Your task to perform on an android device: create a new album in the google photos Image 0: 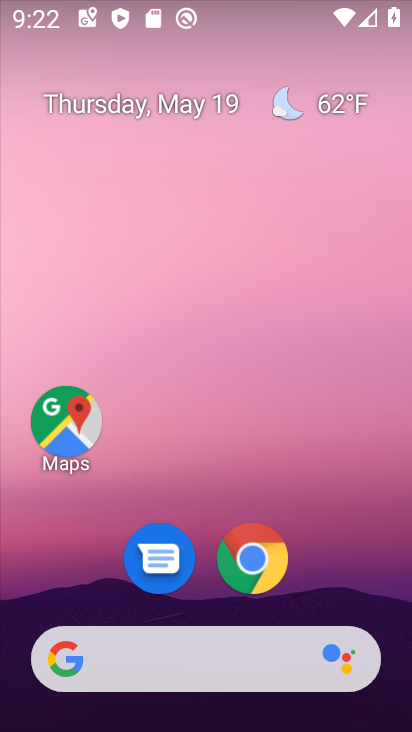
Step 0: drag from (331, 586) to (221, 153)
Your task to perform on an android device: create a new album in the google photos Image 1: 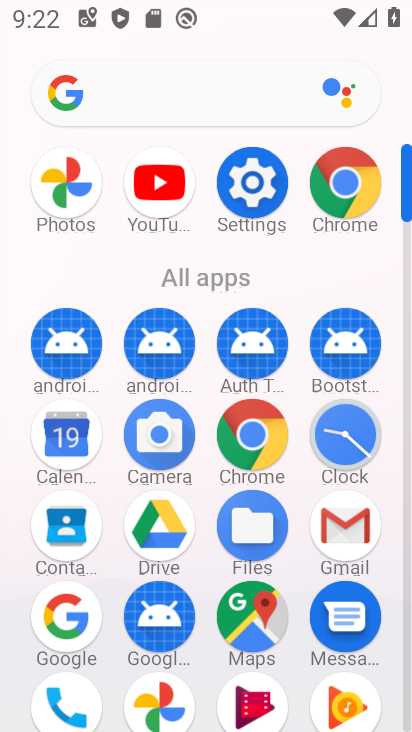
Step 1: click (67, 184)
Your task to perform on an android device: create a new album in the google photos Image 2: 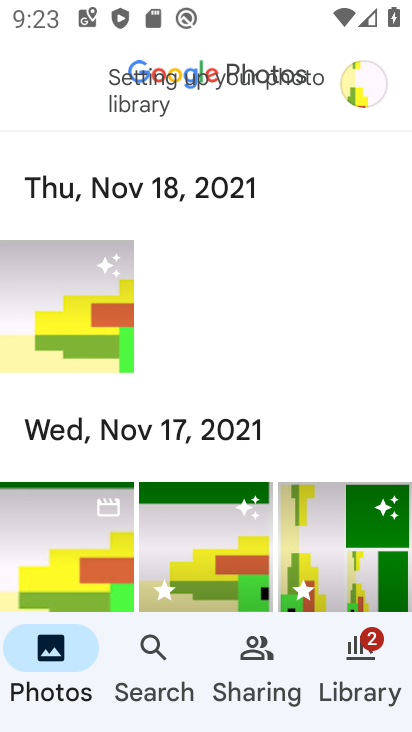
Step 2: click (365, 651)
Your task to perform on an android device: create a new album in the google photos Image 3: 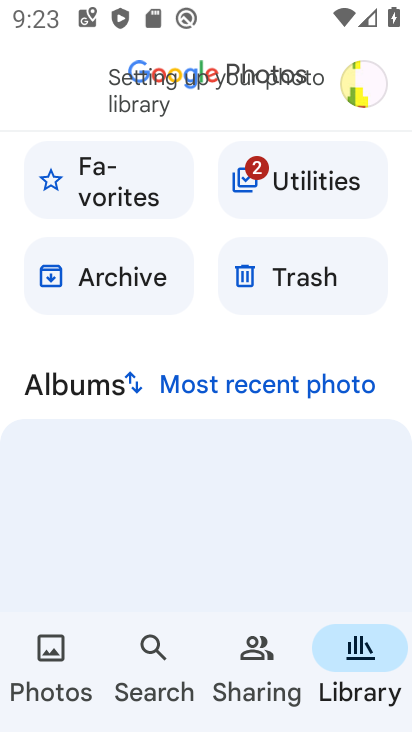
Step 3: drag from (177, 559) to (238, 403)
Your task to perform on an android device: create a new album in the google photos Image 4: 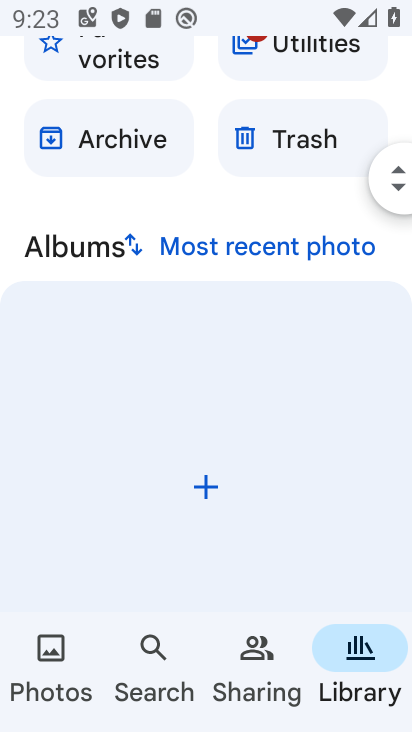
Step 4: click (209, 482)
Your task to perform on an android device: create a new album in the google photos Image 5: 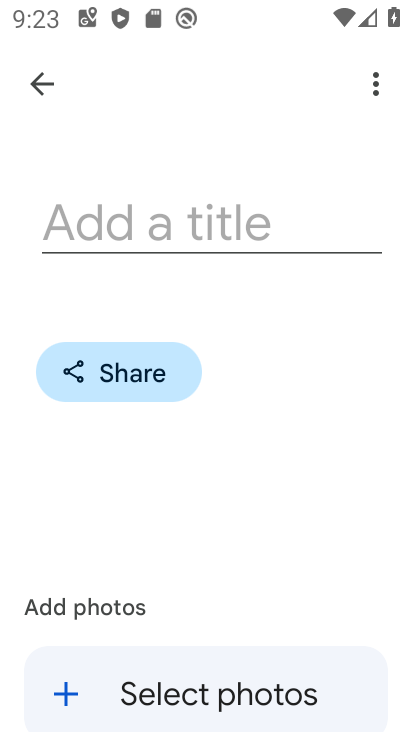
Step 5: click (166, 225)
Your task to perform on an android device: create a new album in the google photos Image 6: 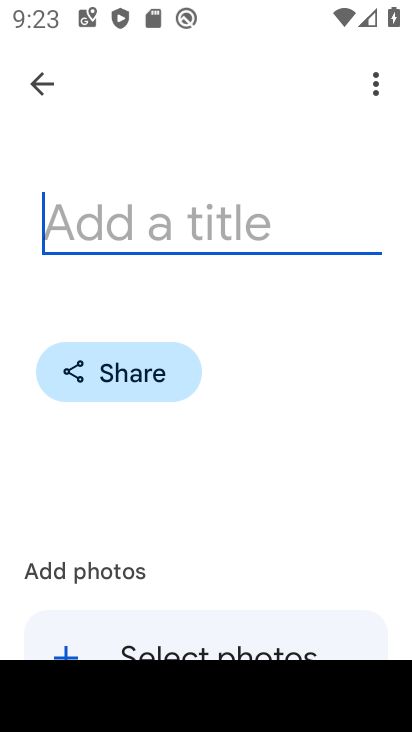
Step 6: type "Share"
Your task to perform on an android device: create a new album in the google photos Image 7: 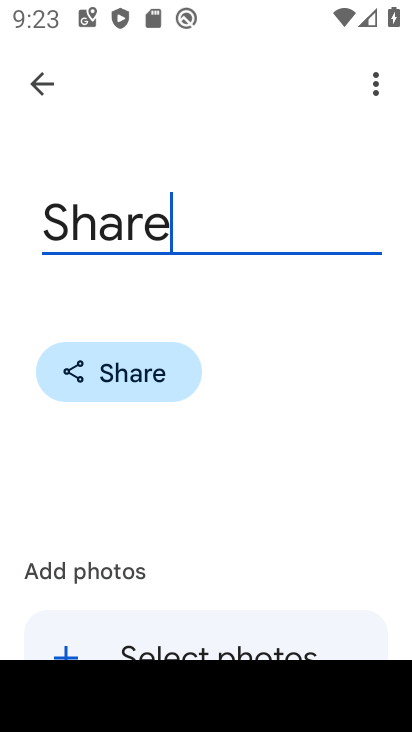
Step 7: type ""
Your task to perform on an android device: create a new album in the google photos Image 8: 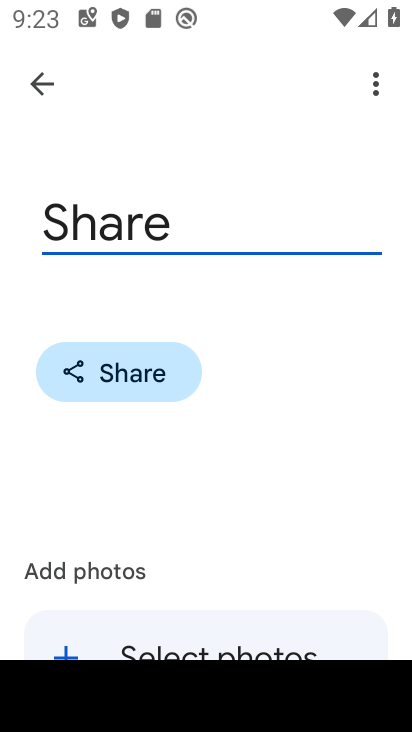
Step 8: drag from (225, 522) to (287, 424)
Your task to perform on an android device: create a new album in the google photos Image 9: 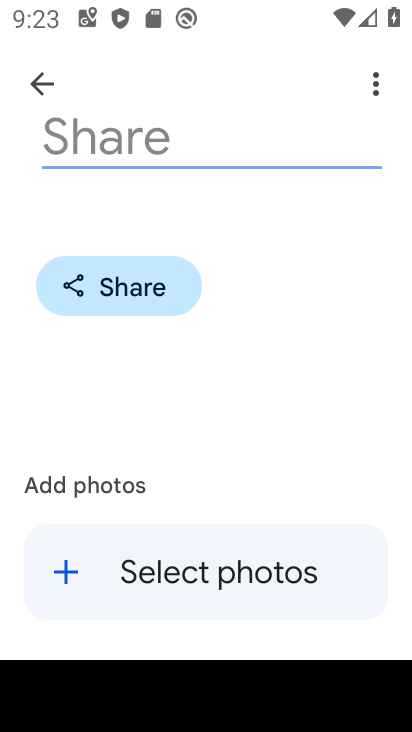
Step 9: click (63, 570)
Your task to perform on an android device: create a new album in the google photos Image 10: 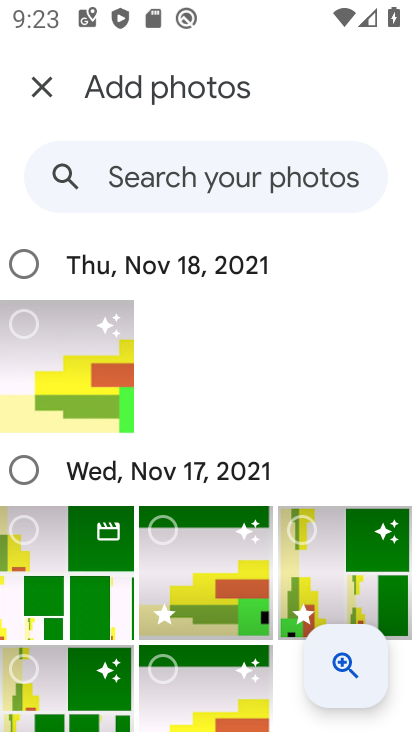
Step 10: click (25, 265)
Your task to perform on an android device: create a new album in the google photos Image 11: 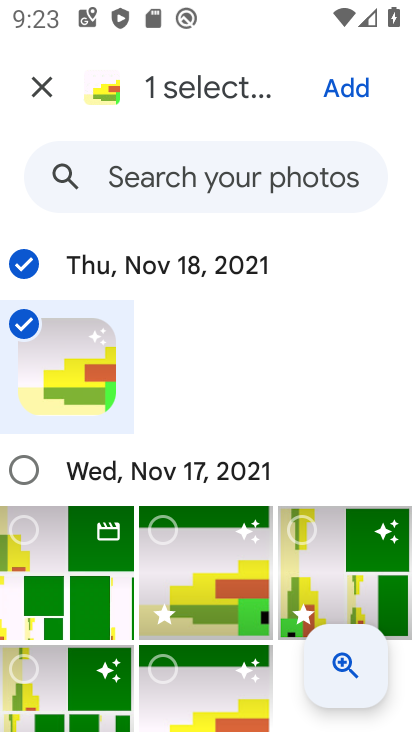
Step 11: click (336, 89)
Your task to perform on an android device: create a new album in the google photos Image 12: 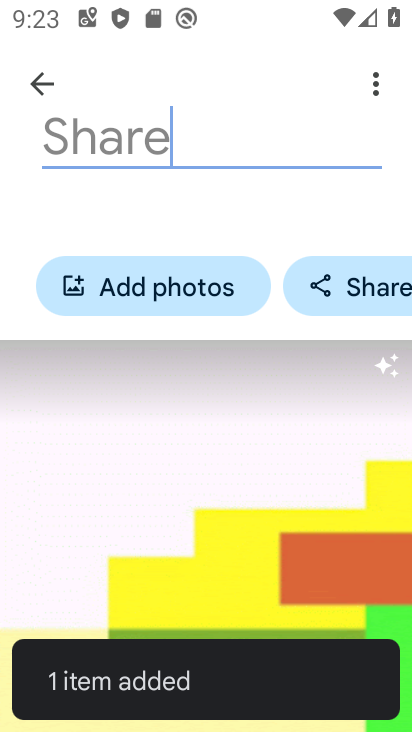
Step 12: task complete